Your task to perform on an android device: check out phone information Image 0: 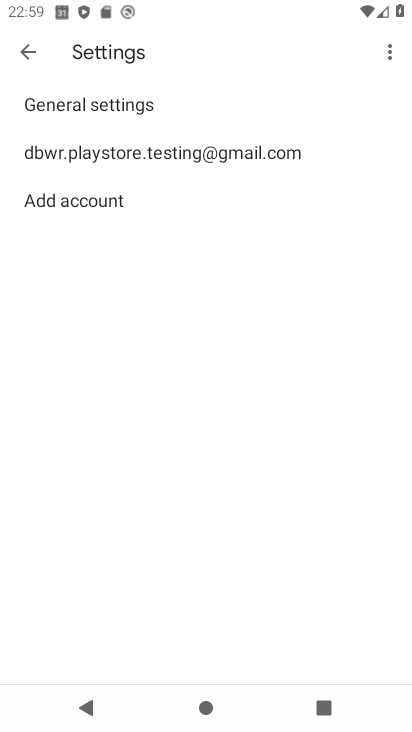
Step 0: press back button
Your task to perform on an android device: check out phone information Image 1: 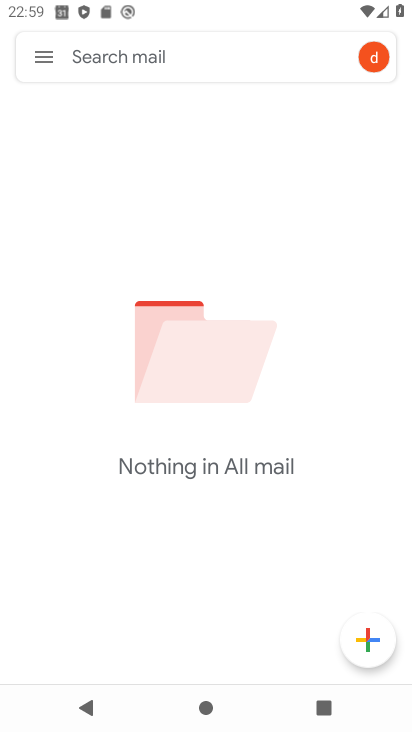
Step 1: press back button
Your task to perform on an android device: check out phone information Image 2: 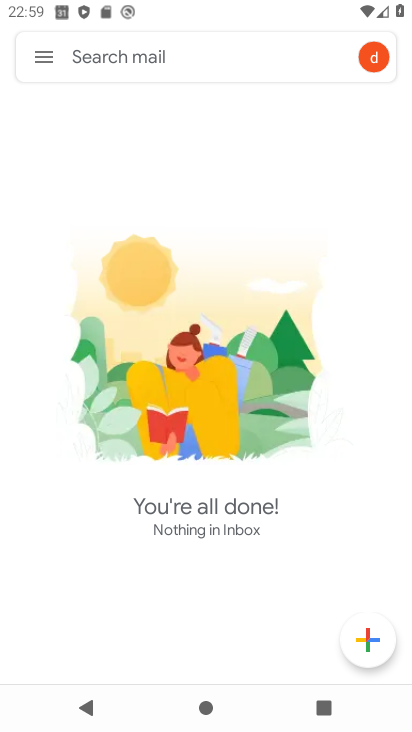
Step 2: press back button
Your task to perform on an android device: check out phone information Image 3: 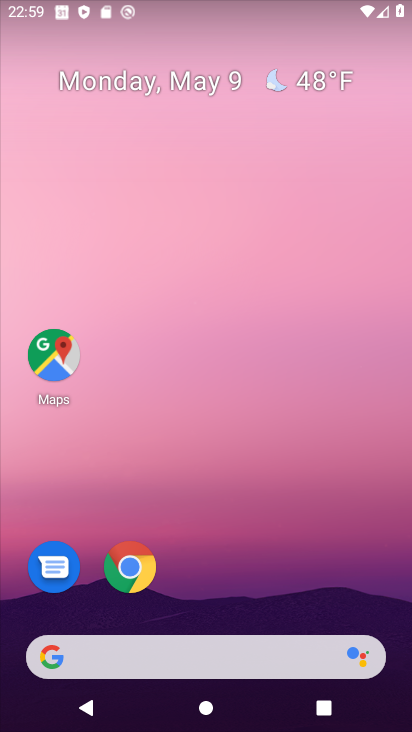
Step 3: drag from (278, 555) to (213, 53)
Your task to perform on an android device: check out phone information Image 4: 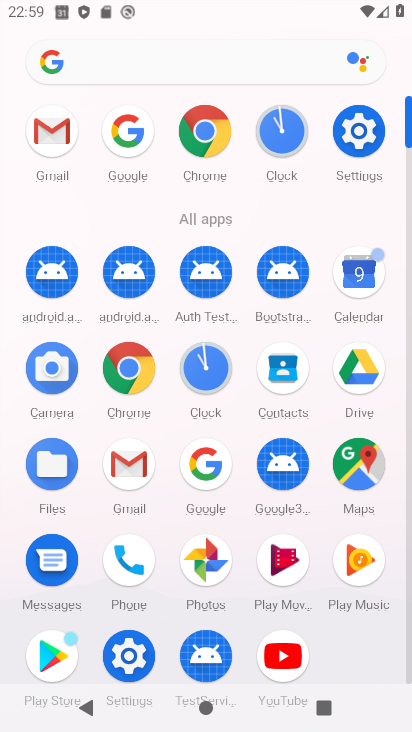
Step 4: click (360, 129)
Your task to perform on an android device: check out phone information Image 5: 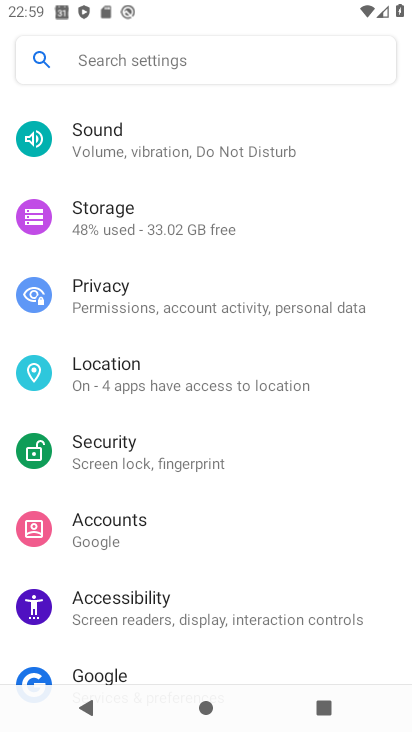
Step 5: drag from (186, 402) to (222, 310)
Your task to perform on an android device: check out phone information Image 6: 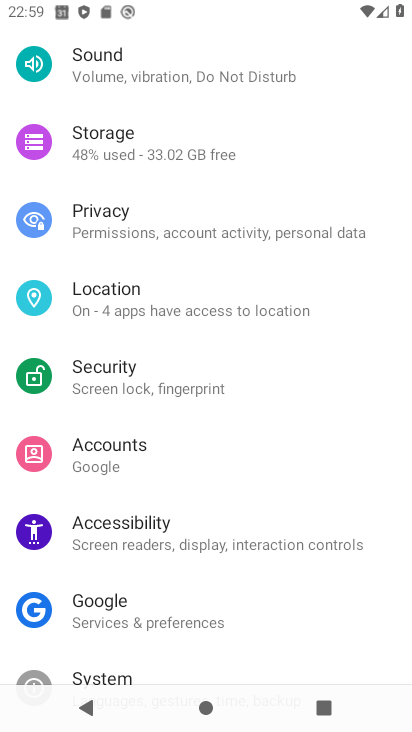
Step 6: drag from (184, 434) to (208, 336)
Your task to perform on an android device: check out phone information Image 7: 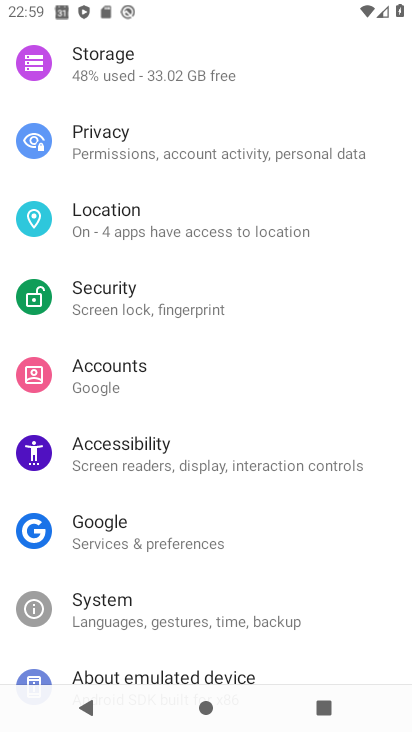
Step 7: drag from (166, 477) to (269, 199)
Your task to perform on an android device: check out phone information Image 8: 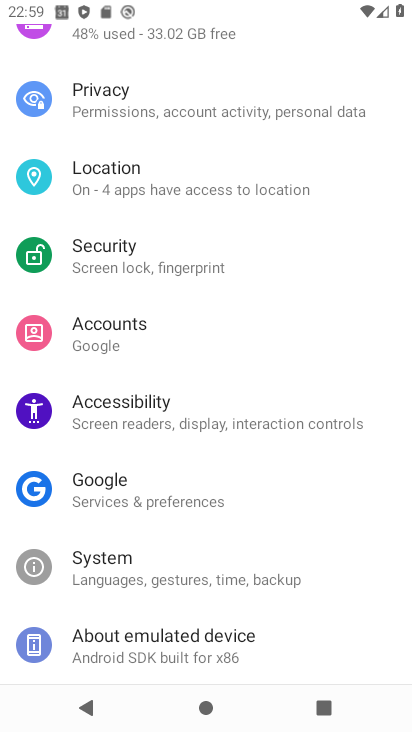
Step 8: click (163, 633)
Your task to perform on an android device: check out phone information Image 9: 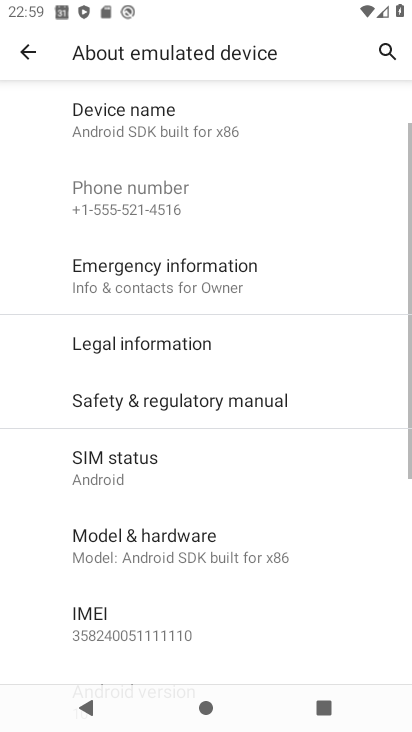
Step 9: drag from (177, 447) to (209, 299)
Your task to perform on an android device: check out phone information Image 10: 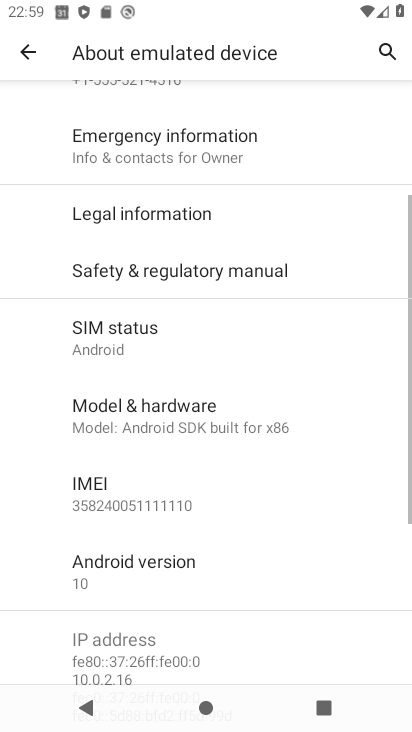
Step 10: drag from (175, 552) to (194, 279)
Your task to perform on an android device: check out phone information Image 11: 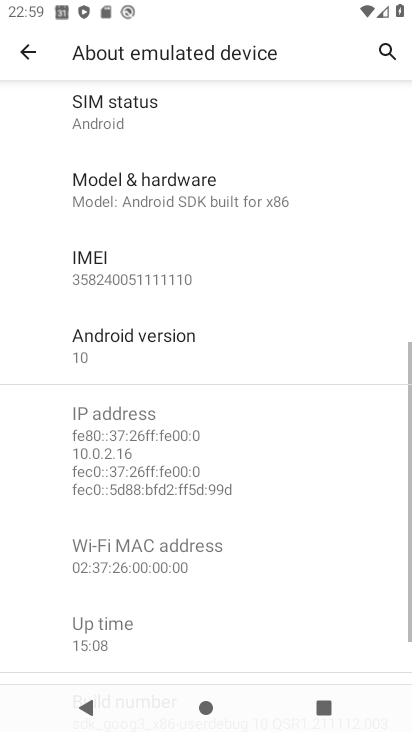
Step 11: drag from (198, 233) to (245, 508)
Your task to perform on an android device: check out phone information Image 12: 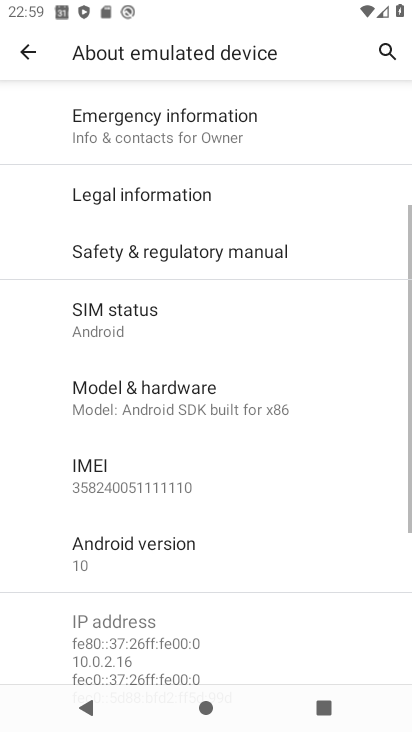
Step 12: click (179, 124)
Your task to perform on an android device: check out phone information Image 13: 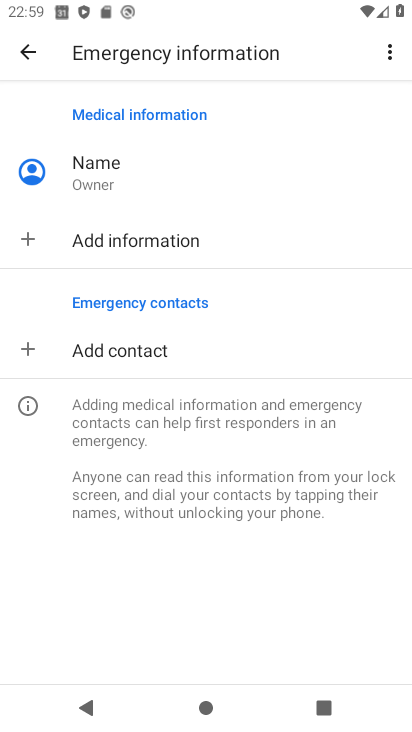
Step 13: task complete